Your task to perform on an android device: Go to ESPN.com Image 0: 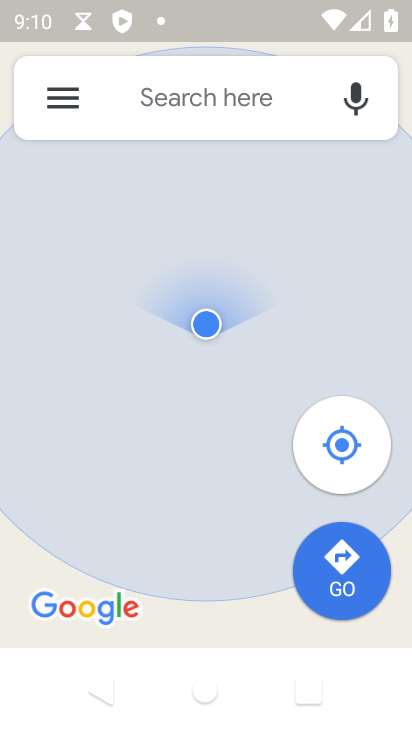
Step 0: press home button
Your task to perform on an android device: Go to ESPN.com Image 1: 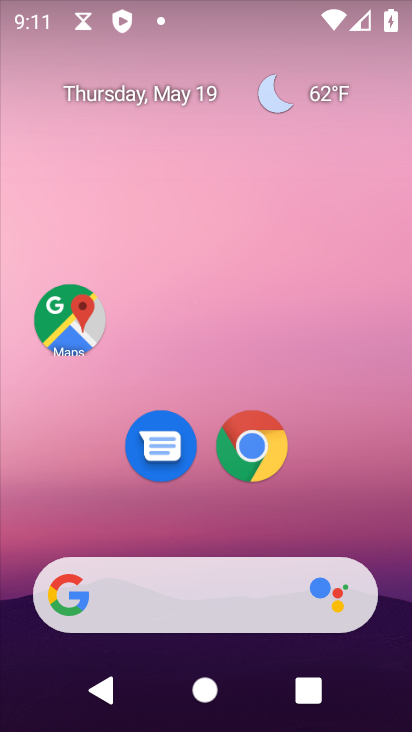
Step 1: click (250, 462)
Your task to perform on an android device: Go to ESPN.com Image 2: 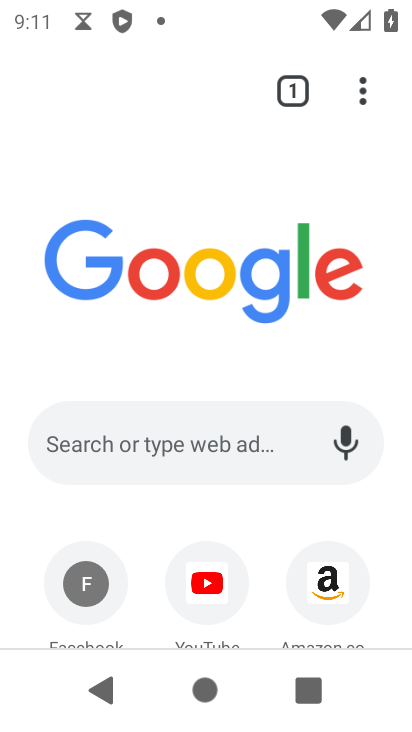
Step 2: click (152, 439)
Your task to perform on an android device: Go to ESPN.com Image 3: 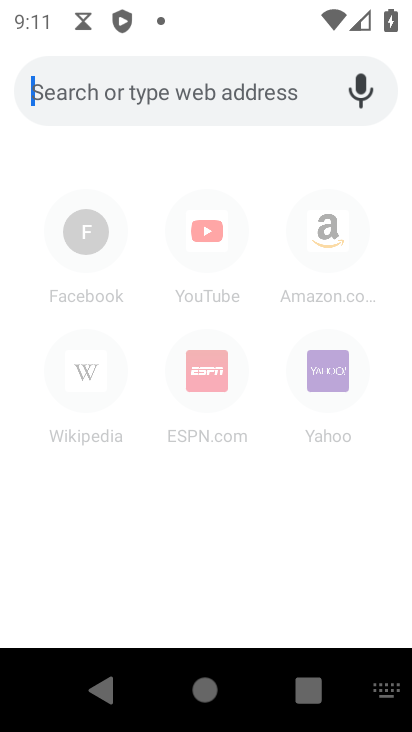
Step 3: type "espn.com"
Your task to perform on an android device: Go to ESPN.com Image 4: 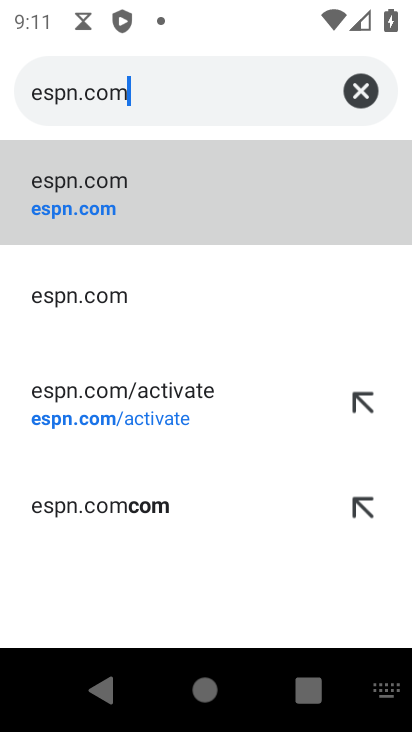
Step 4: click (58, 180)
Your task to perform on an android device: Go to ESPN.com Image 5: 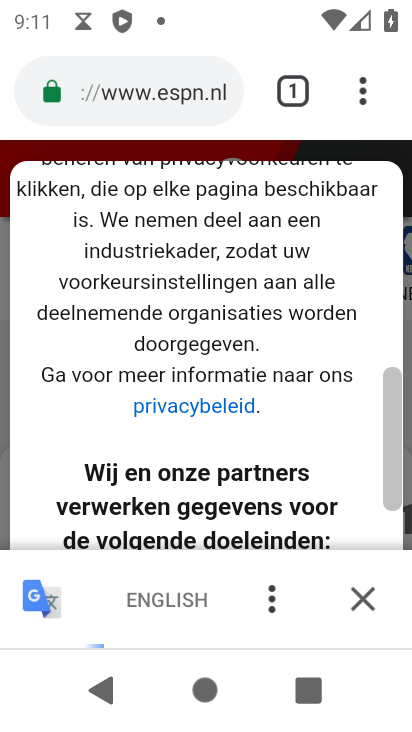
Step 5: task complete